Your task to perform on an android device: see sites visited before in the chrome app Image 0: 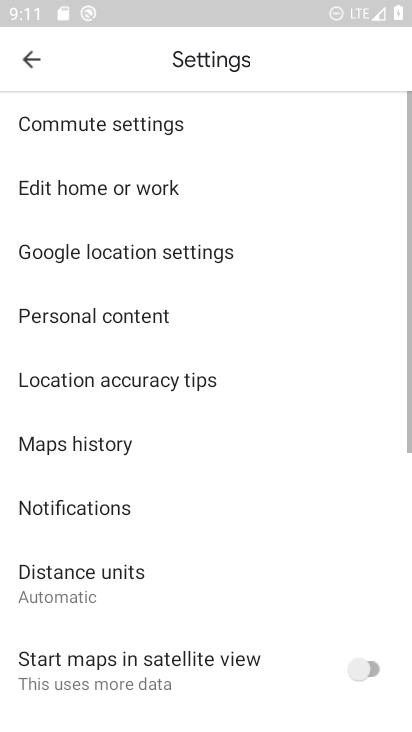
Step 0: press home button
Your task to perform on an android device: see sites visited before in the chrome app Image 1: 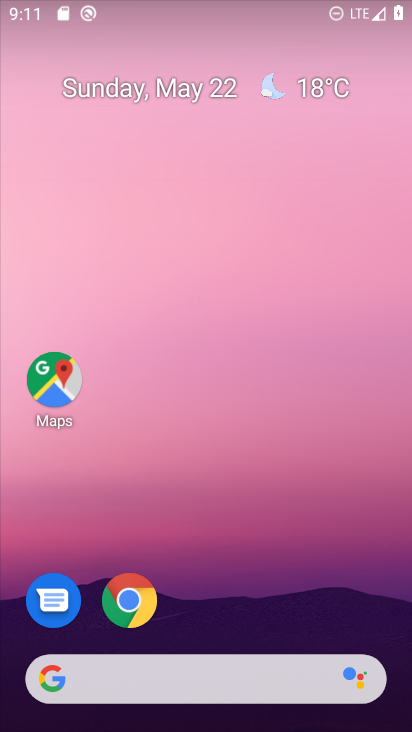
Step 1: drag from (394, 643) to (232, 90)
Your task to perform on an android device: see sites visited before in the chrome app Image 2: 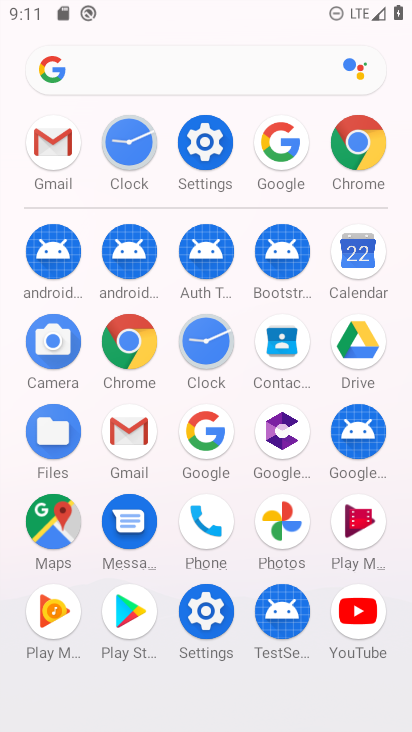
Step 2: click (134, 363)
Your task to perform on an android device: see sites visited before in the chrome app Image 3: 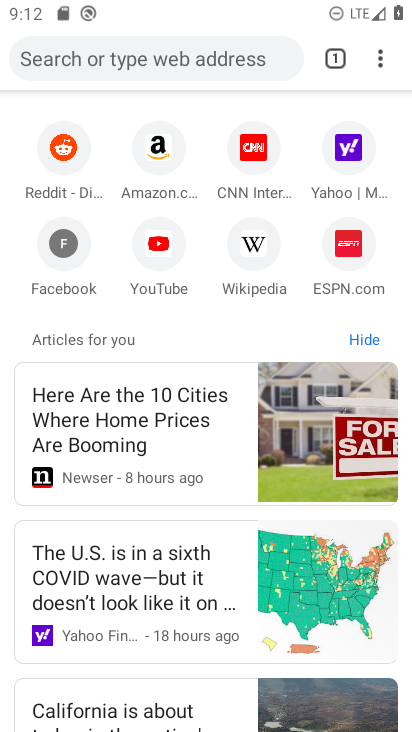
Step 3: click (380, 57)
Your task to perform on an android device: see sites visited before in the chrome app Image 4: 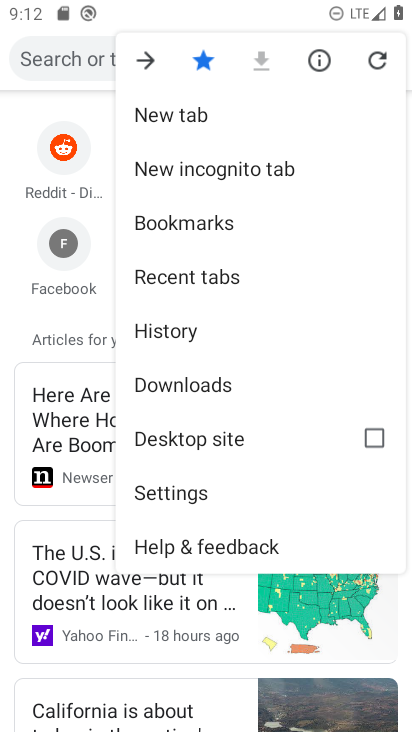
Step 4: click (190, 342)
Your task to perform on an android device: see sites visited before in the chrome app Image 5: 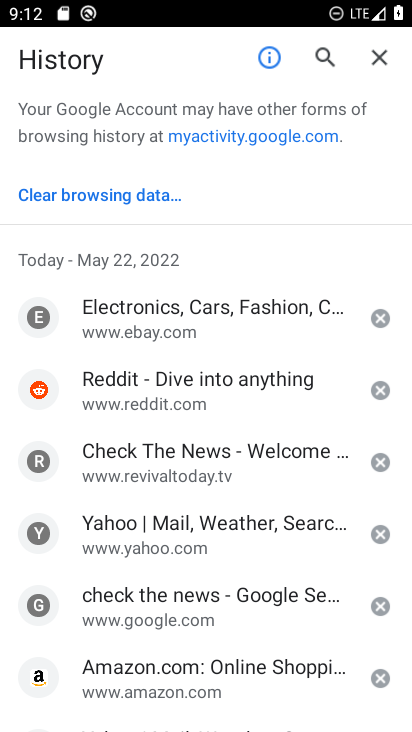
Step 5: click (190, 338)
Your task to perform on an android device: see sites visited before in the chrome app Image 6: 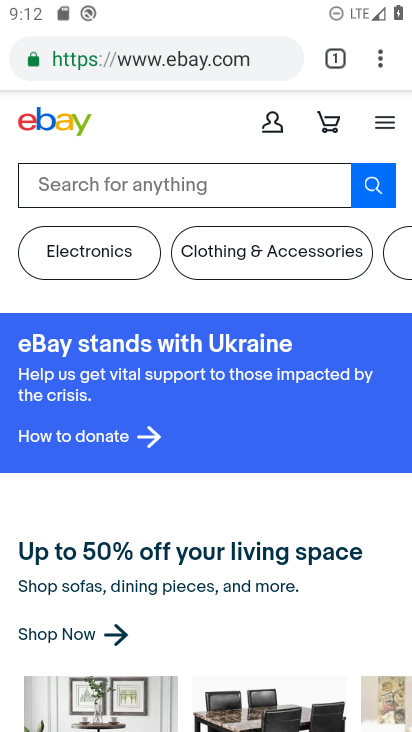
Step 6: task complete